Your task to perform on an android device: check battery use Image 0: 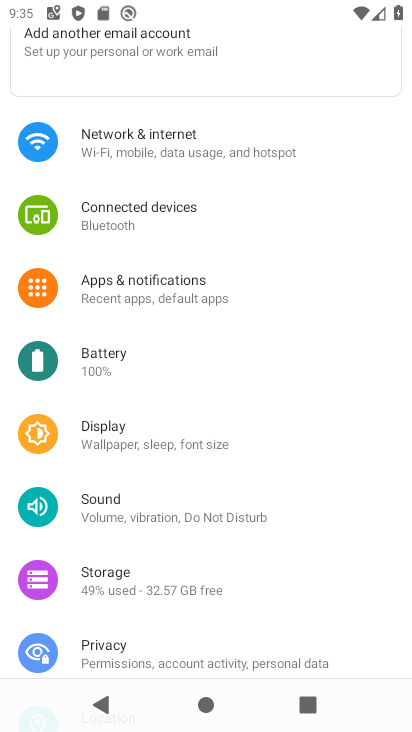
Step 0: press home button
Your task to perform on an android device: check battery use Image 1: 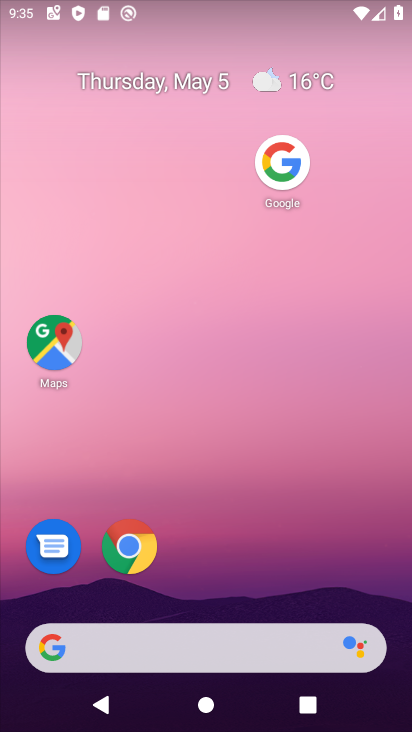
Step 1: drag from (202, 654) to (364, 78)
Your task to perform on an android device: check battery use Image 2: 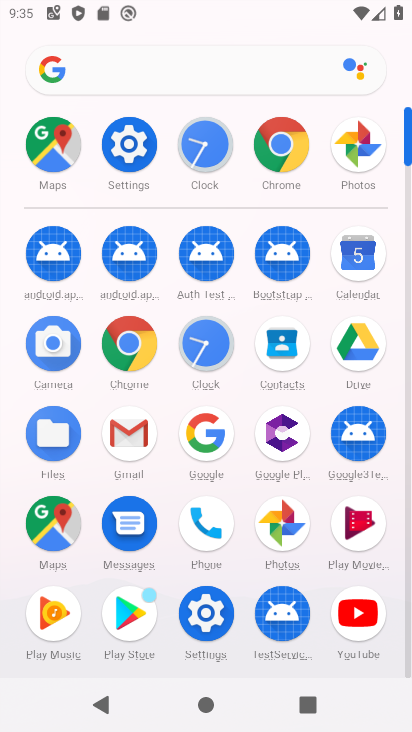
Step 2: click (122, 154)
Your task to perform on an android device: check battery use Image 3: 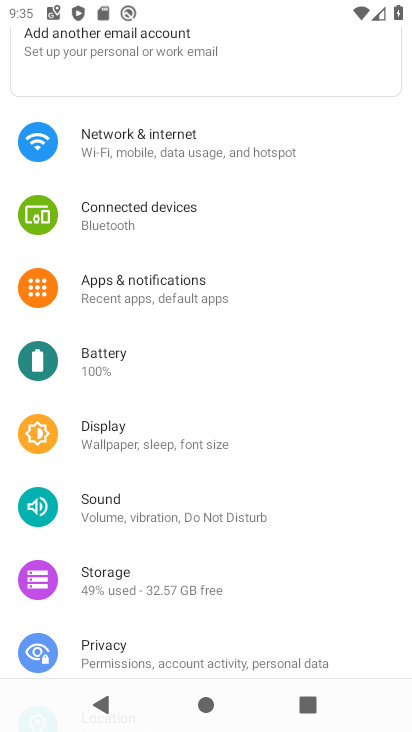
Step 3: click (109, 362)
Your task to perform on an android device: check battery use Image 4: 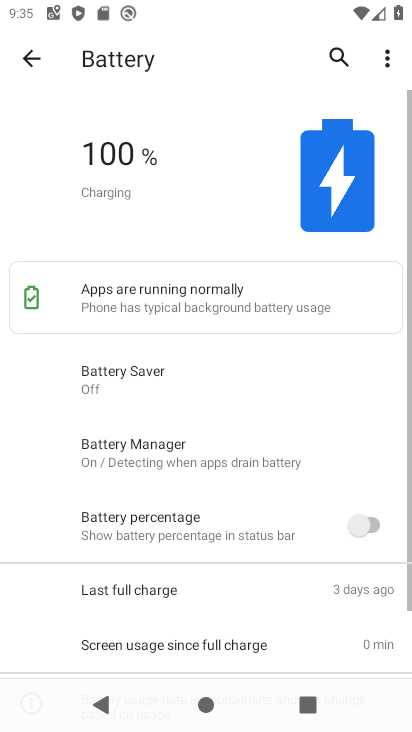
Step 4: click (382, 54)
Your task to perform on an android device: check battery use Image 5: 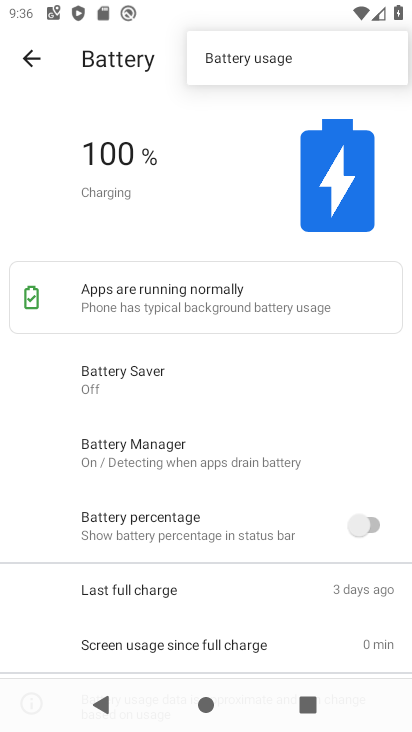
Step 5: click (257, 59)
Your task to perform on an android device: check battery use Image 6: 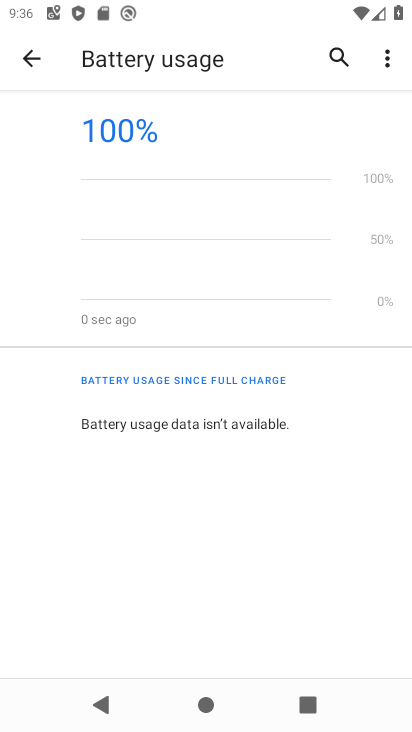
Step 6: click (316, 249)
Your task to perform on an android device: check battery use Image 7: 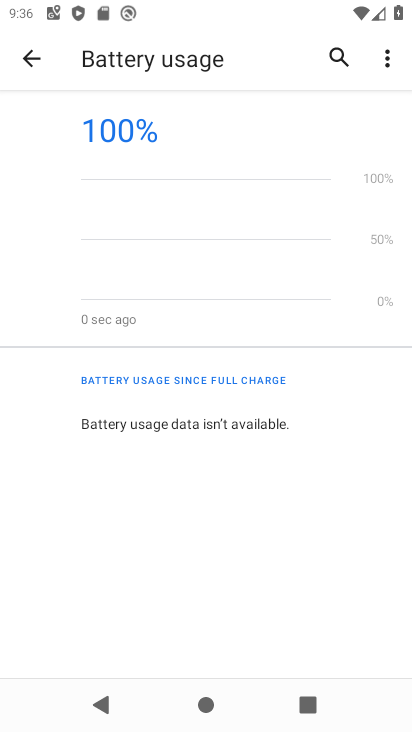
Step 7: task complete